Your task to perform on an android device: allow cookies in the chrome app Image 0: 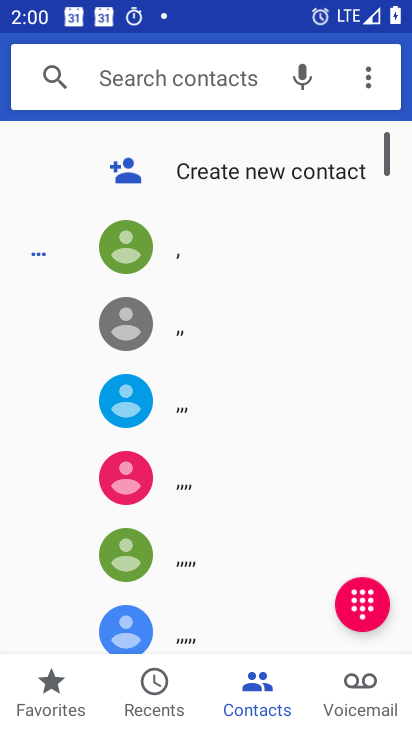
Step 0: press home button
Your task to perform on an android device: allow cookies in the chrome app Image 1: 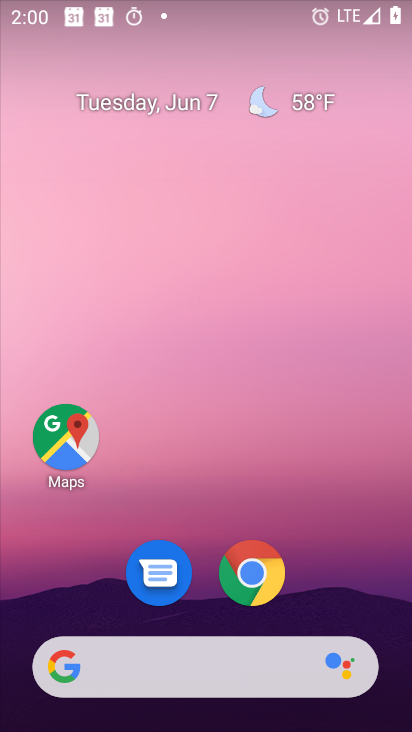
Step 1: click (260, 572)
Your task to perform on an android device: allow cookies in the chrome app Image 2: 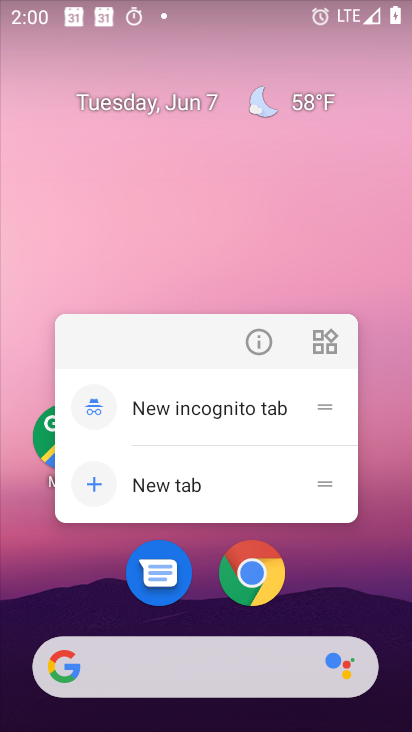
Step 2: click (311, 595)
Your task to perform on an android device: allow cookies in the chrome app Image 3: 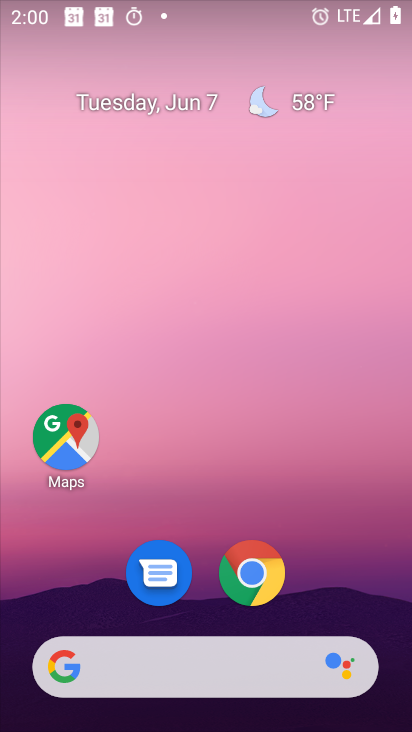
Step 3: drag from (320, 595) to (288, 96)
Your task to perform on an android device: allow cookies in the chrome app Image 4: 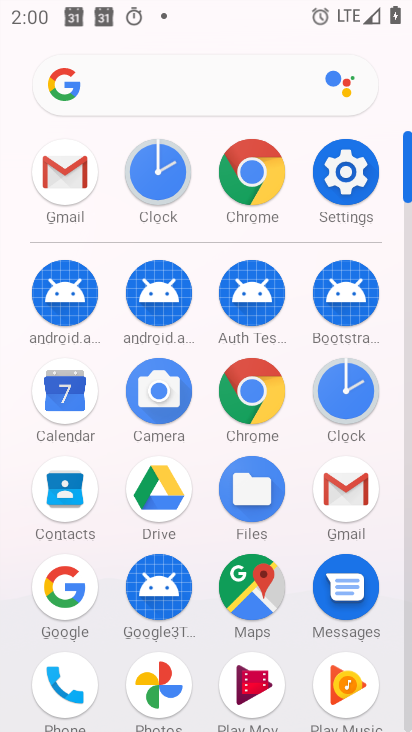
Step 4: click (267, 389)
Your task to perform on an android device: allow cookies in the chrome app Image 5: 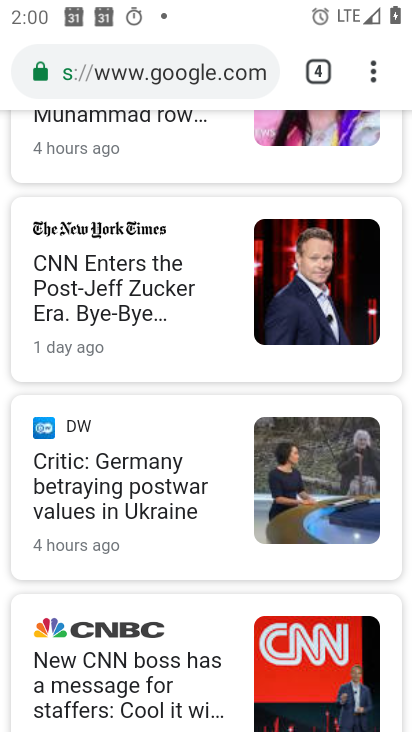
Step 5: drag from (365, 69) to (121, 575)
Your task to perform on an android device: allow cookies in the chrome app Image 6: 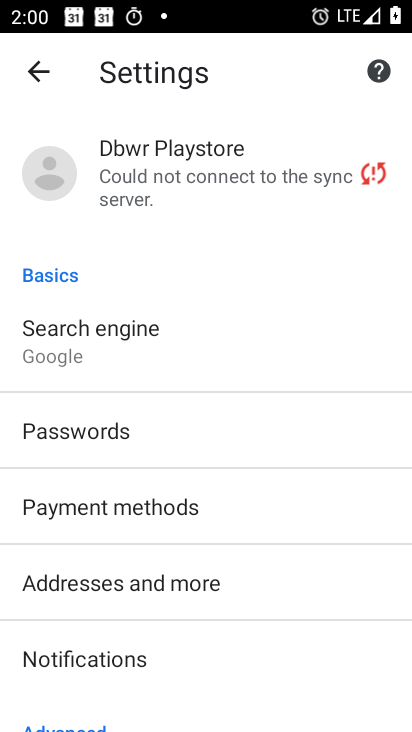
Step 6: drag from (172, 687) to (215, 219)
Your task to perform on an android device: allow cookies in the chrome app Image 7: 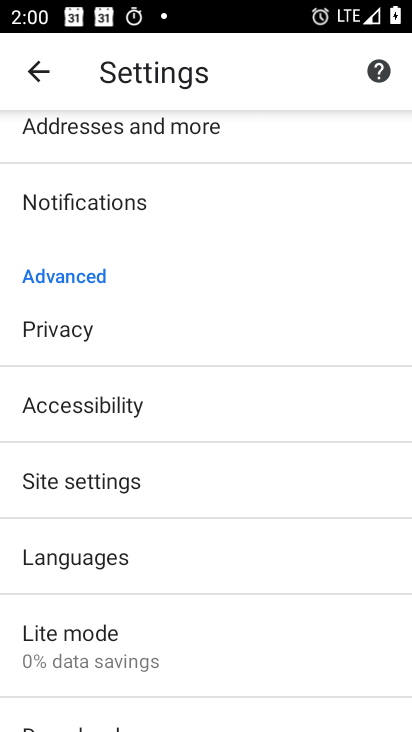
Step 7: click (88, 480)
Your task to perform on an android device: allow cookies in the chrome app Image 8: 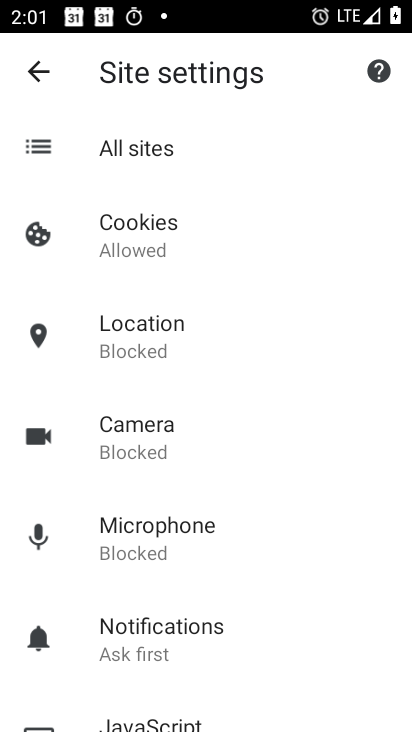
Step 8: click (139, 238)
Your task to perform on an android device: allow cookies in the chrome app Image 9: 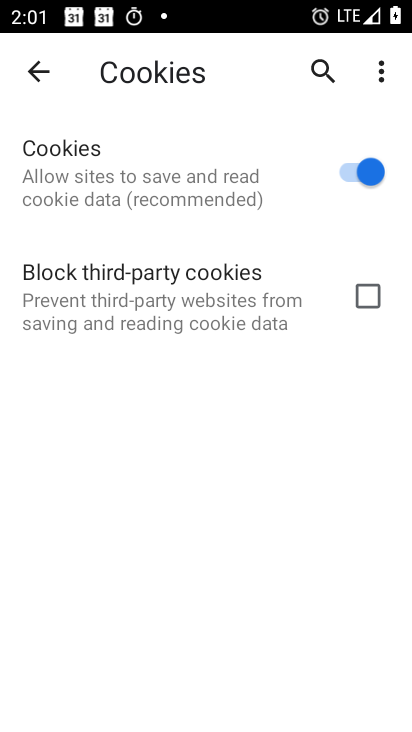
Step 9: task complete